Your task to perform on an android device: Open Youtube and go to "Your channel" Image 0: 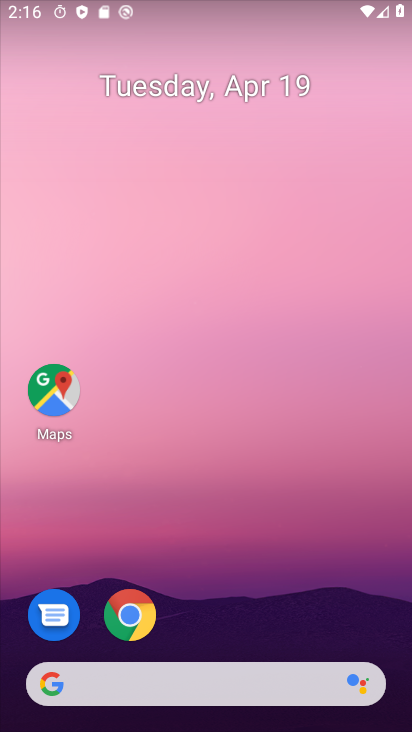
Step 0: drag from (226, 571) to (361, 56)
Your task to perform on an android device: Open Youtube and go to "Your channel" Image 1: 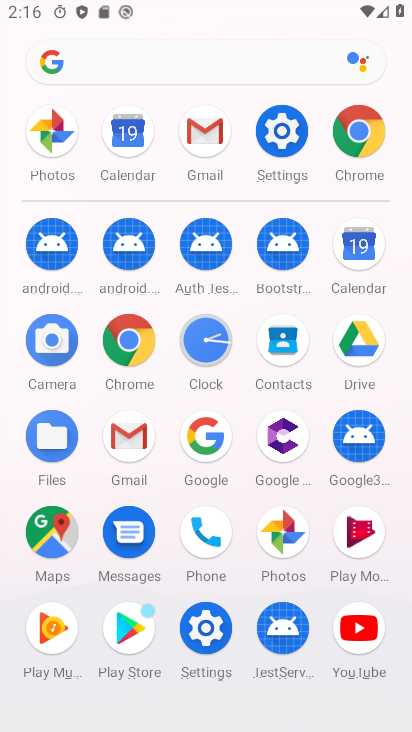
Step 1: click (348, 635)
Your task to perform on an android device: Open Youtube and go to "Your channel" Image 2: 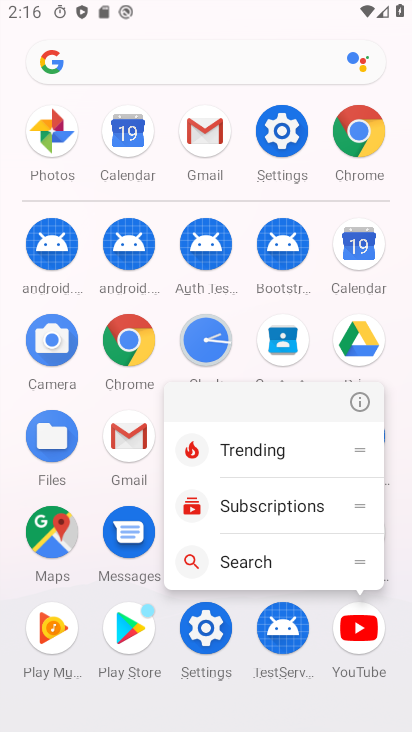
Step 2: click (350, 394)
Your task to perform on an android device: Open Youtube and go to "Your channel" Image 3: 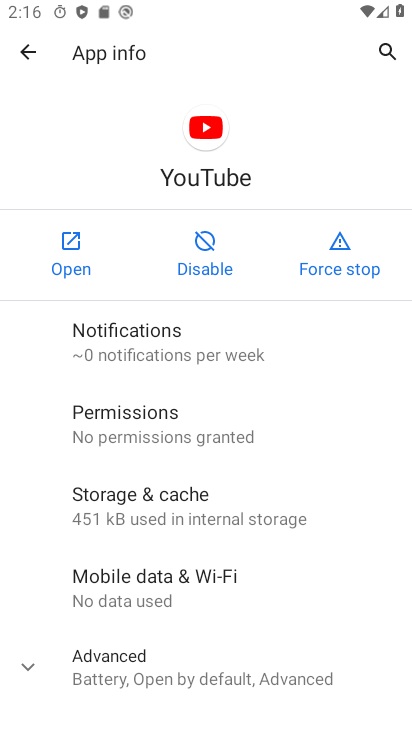
Step 3: click (46, 236)
Your task to perform on an android device: Open Youtube and go to "Your channel" Image 4: 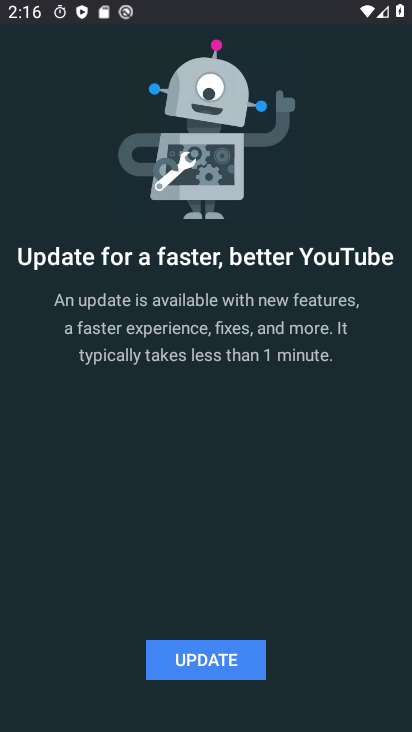
Step 4: task complete